Your task to perform on an android device: Go to Yahoo.com Image 0: 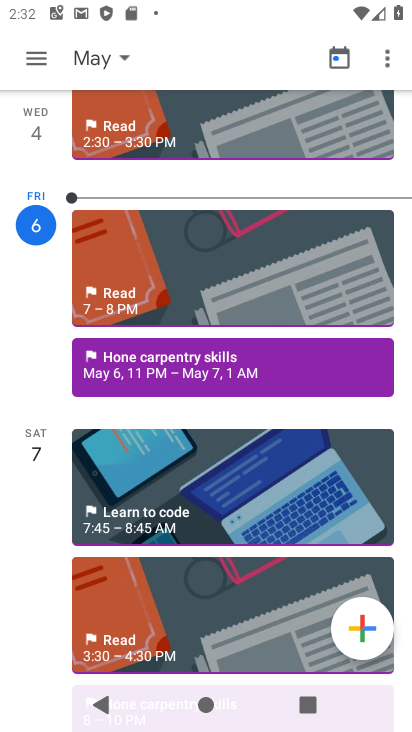
Step 0: press home button
Your task to perform on an android device: Go to Yahoo.com Image 1: 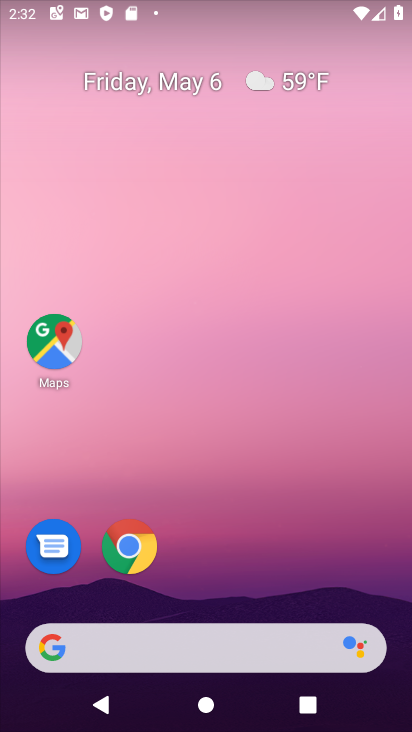
Step 1: click (135, 541)
Your task to perform on an android device: Go to Yahoo.com Image 2: 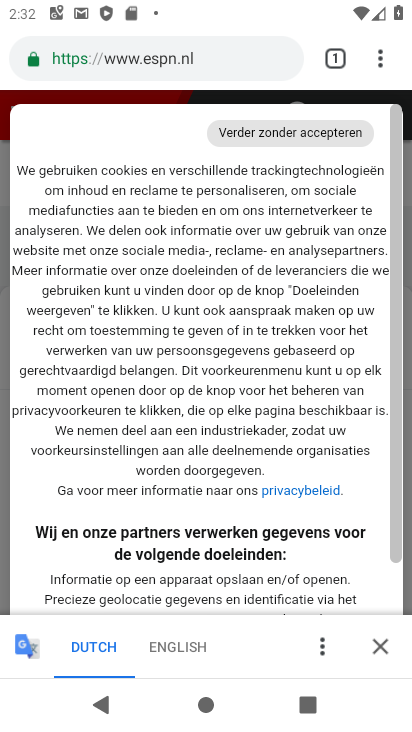
Step 2: click (335, 59)
Your task to perform on an android device: Go to Yahoo.com Image 3: 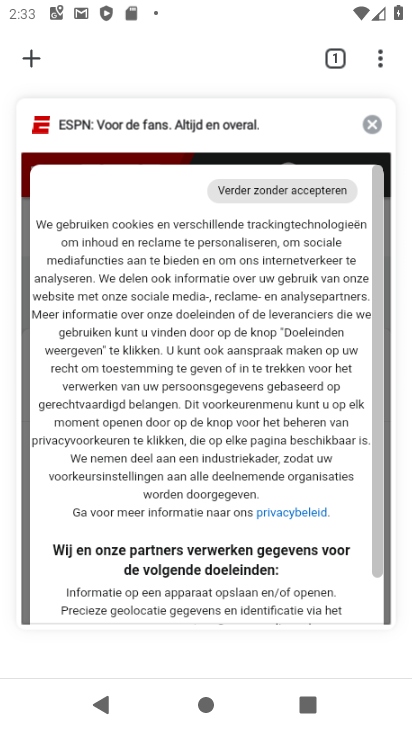
Step 3: click (27, 68)
Your task to perform on an android device: Go to Yahoo.com Image 4: 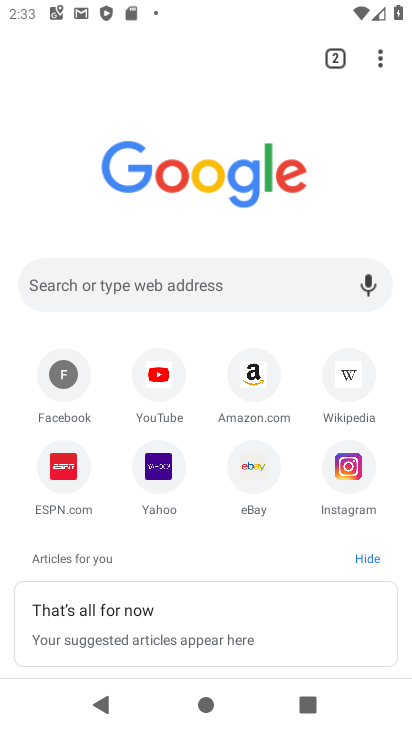
Step 4: click (155, 463)
Your task to perform on an android device: Go to Yahoo.com Image 5: 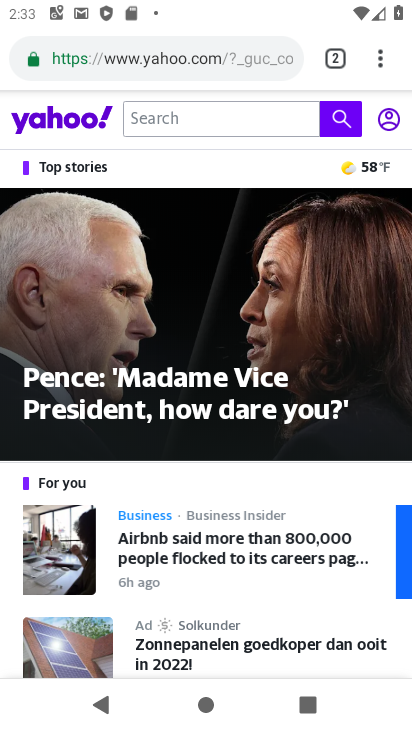
Step 5: task complete